Your task to perform on an android device: Open the stopwatch Image 0: 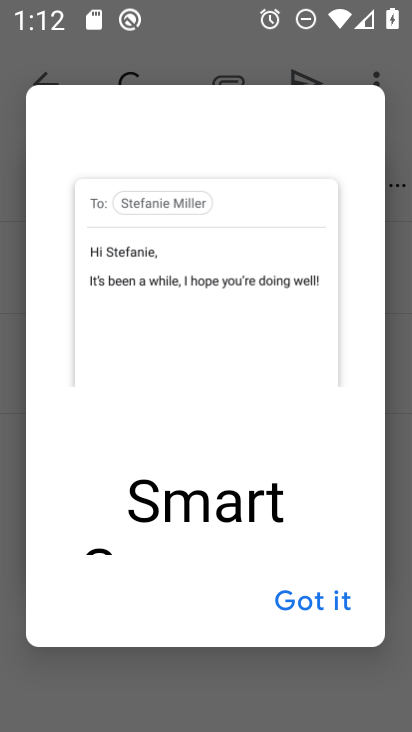
Step 0: press home button
Your task to perform on an android device: Open the stopwatch Image 1: 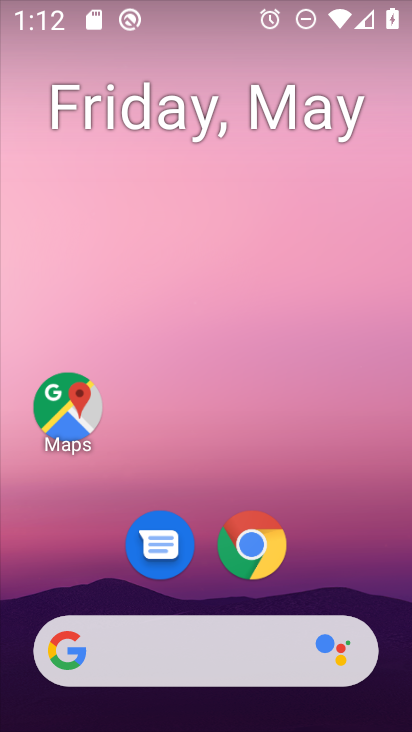
Step 1: drag from (332, 538) to (324, 127)
Your task to perform on an android device: Open the stopwatch Image 2: 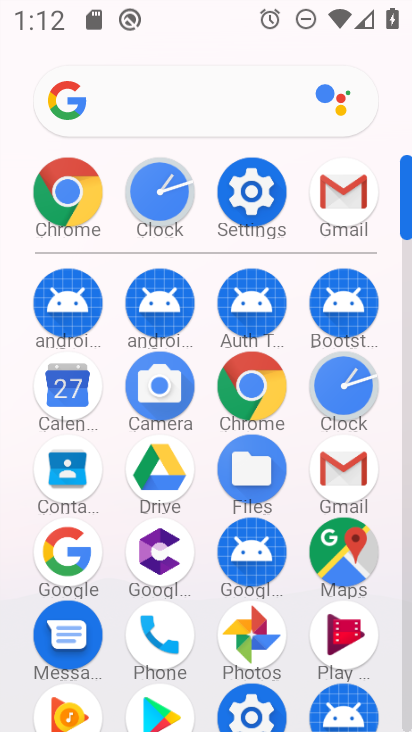
Step 2: click (346, 377)
Your task to perform on an android device: Open the stopwatch Image 3: 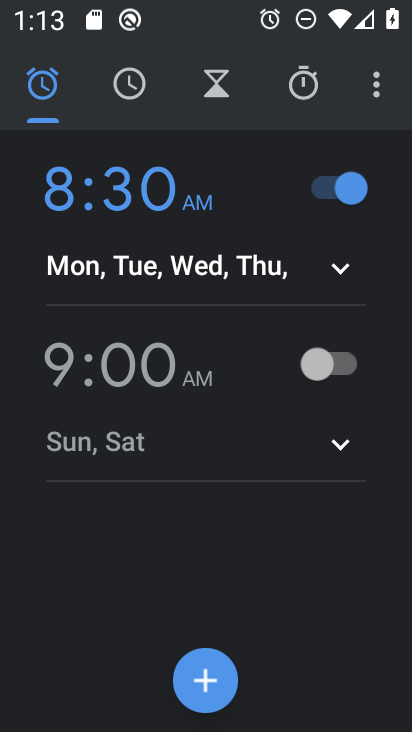
Step 3: click (297, 86)
Your task to perform on an android device: Open the stopwatch Image 4: 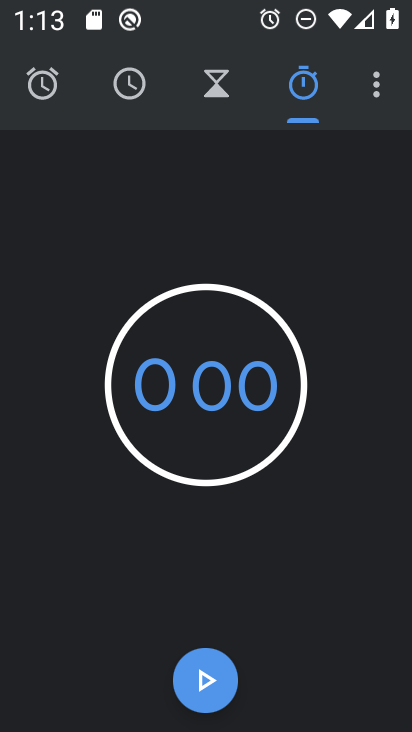
Step 4: task complete